Your task to perform on an android device: check the backup settings in the google photos Image 0: 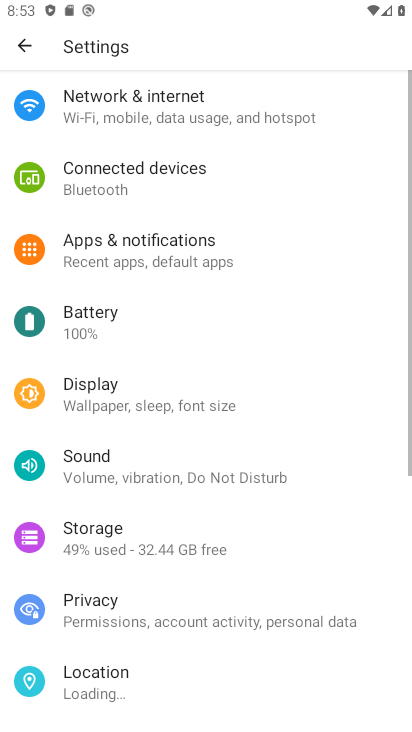
Step 0: drag from (307, 711) to (254, 304)
Your task to perform on an android device: check the backup settings in the google photos Image 1: 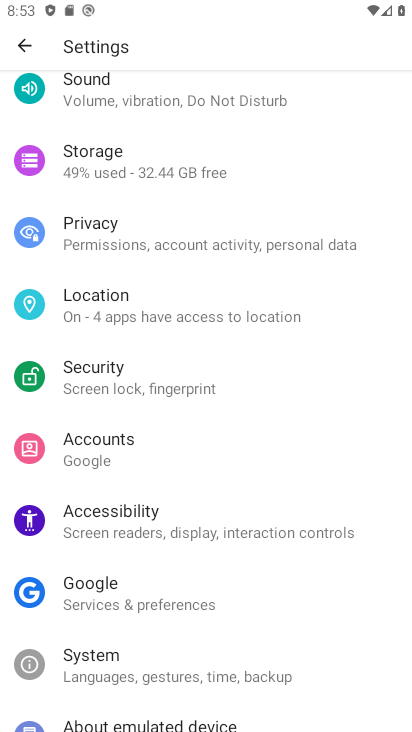
Step 1: press back button
Your task to perform on an android device: check the backup settings in the google photos Image 2: 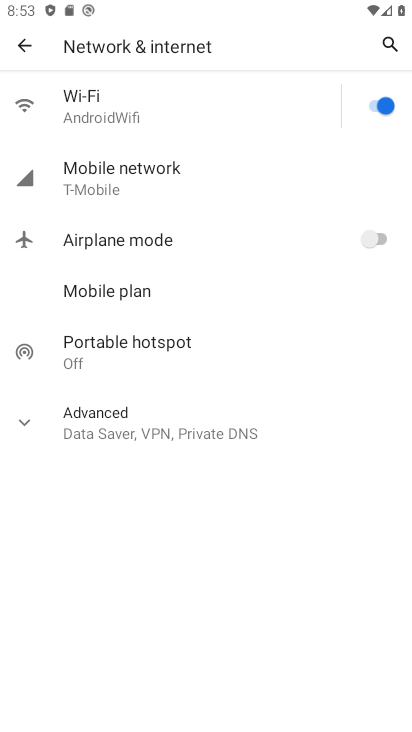
Step 2: press home button
Your task to perform on an android device: check the backup settings in the google photos Image 3: 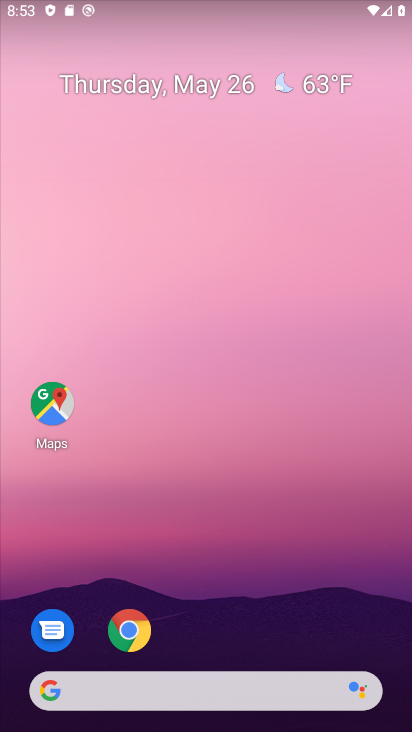
Step 3: drag from (269, 648) to (193, 173)
Your task to perform on an android device: check the backup settings in the google photos Image 4: 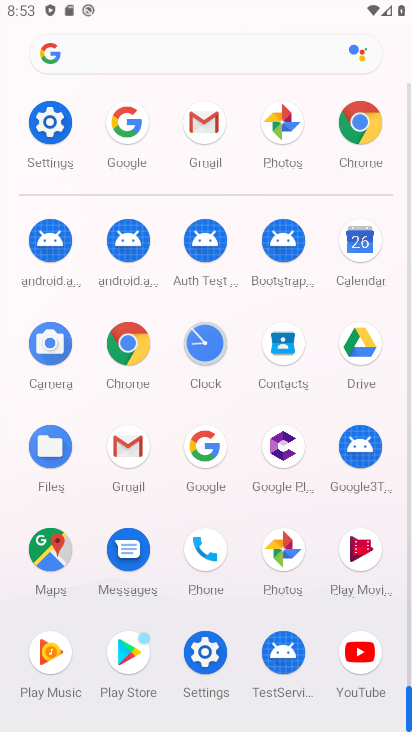
Step 4: click (279, 551)
Your task to perform on an android device: check the backup settings in the google photos Image 5: 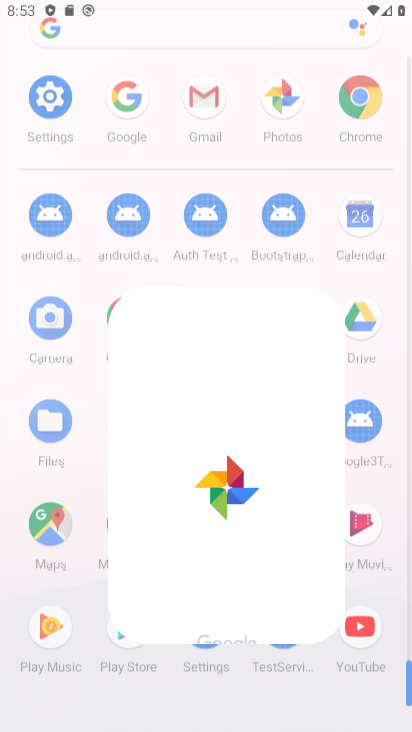
Step 5: click (284, 545)
Your task to perform on an android device: check the backup settings in the google photos Image 6: 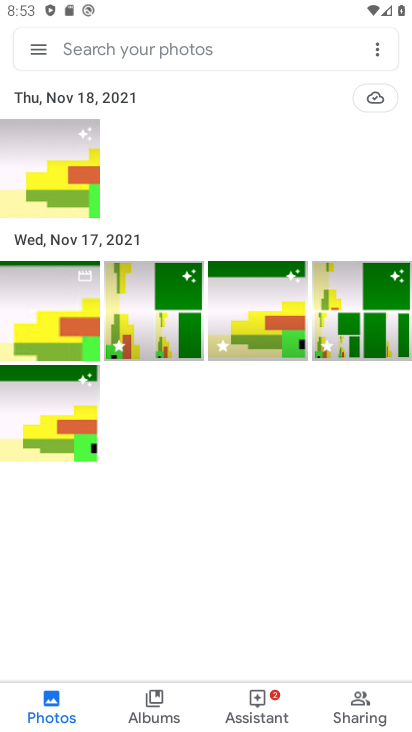
Step 6: click (371, 101)
Your task to perform on an android device: check the backup settings in the google photos Image 7: 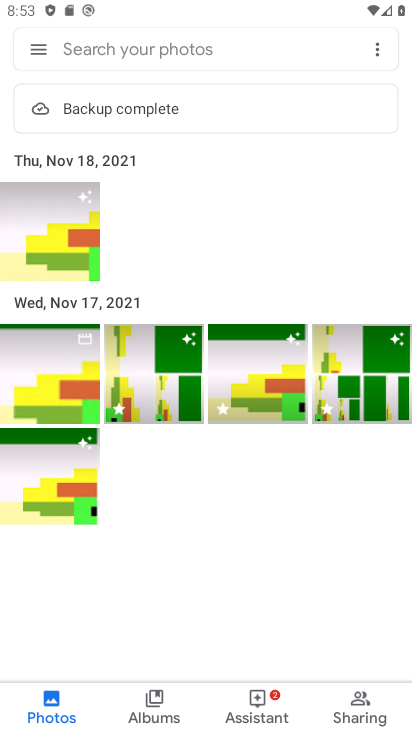
Step 7: click (180, 107)
Your task to perform on an android device: check the backup settings in the google photos Image 8: 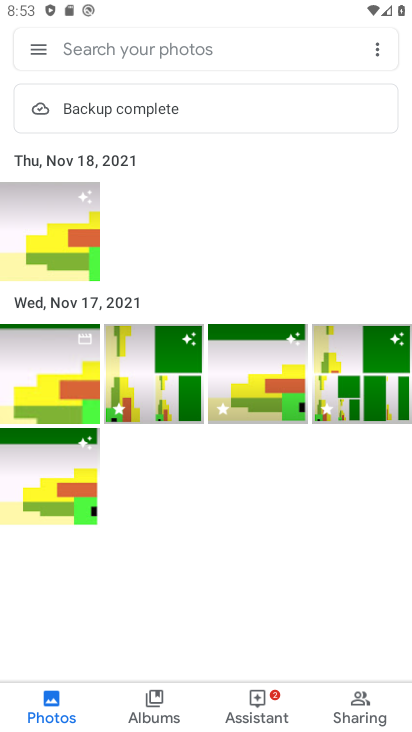
Step 8: click (180, 107)
Your task to perform on an android device: check the backup settings in the google photos Image 9: 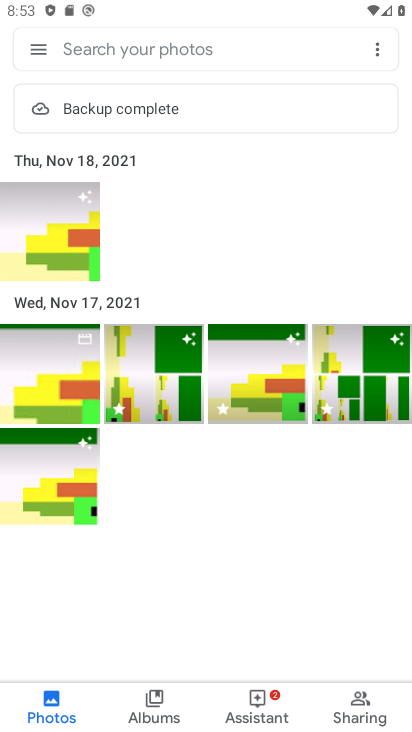
Step 9: click (138, 121)
Your task to perform on an android device: check the backup settings in the google photos Image 10: 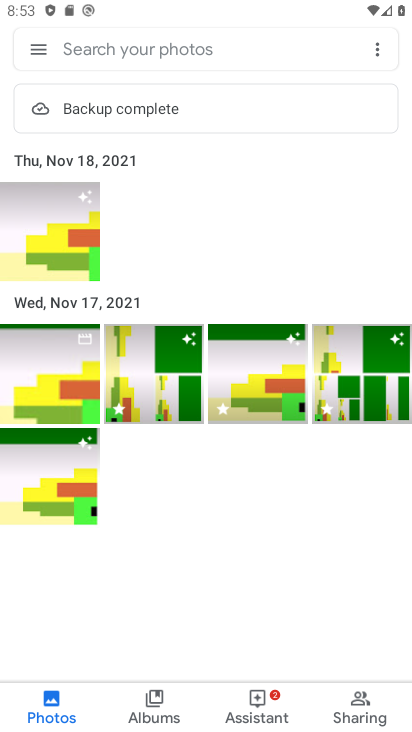
Step 10: click (41, 49)
Your task to perform on an android device: check the backup settings in the google photos Image 11: 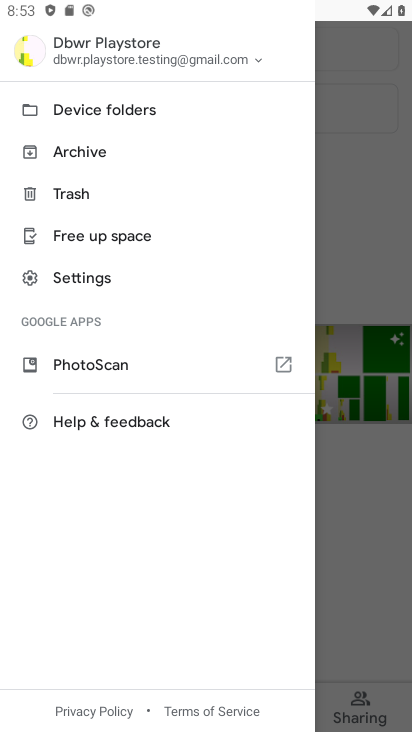
Step 11: click (86, 268)
Your task to perform on an android device: check the backup settings in the google photos Image 12: 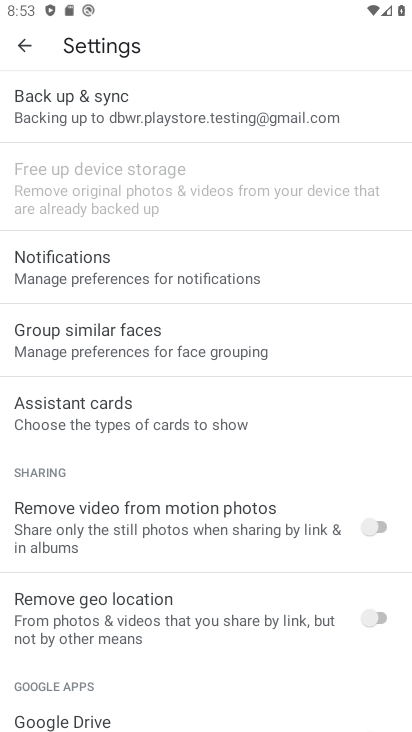
Step 12: click (94, 106)
Your task to perform on an android device: check the backup settings in the google photos Image 13: 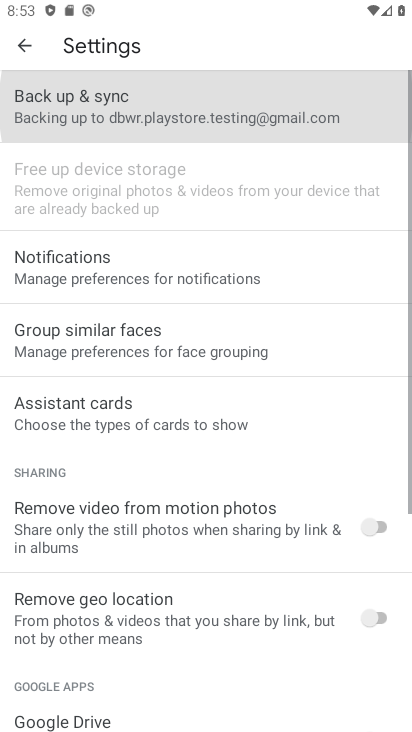
Step 13: click (93, 107)
Your task to perform on an android device: check the backup settings in the google photos Image 14: 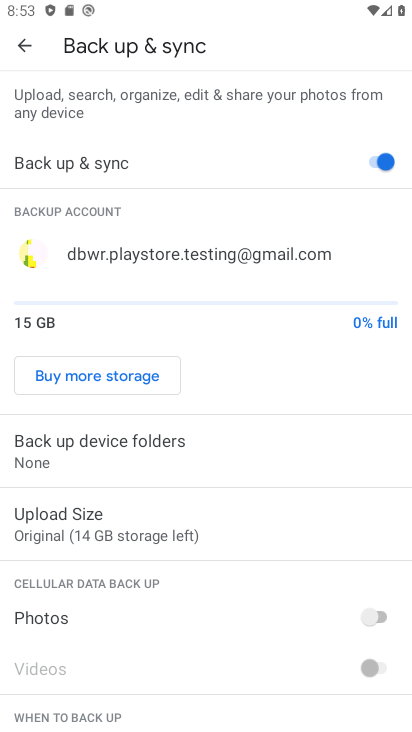
Step 14: task complete